Your task to perform on an android device: Open internet settings Image 0: 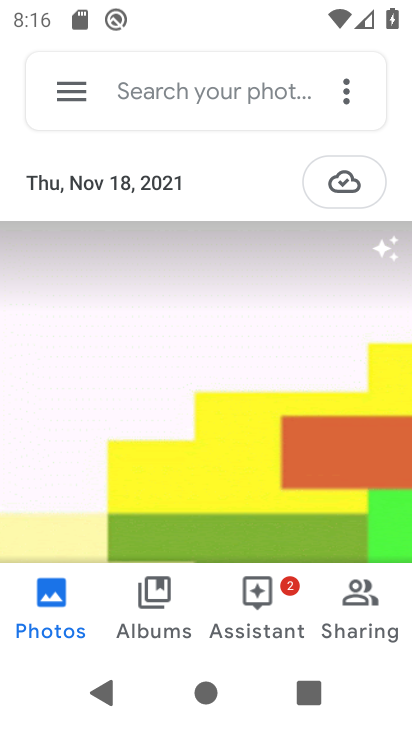
Step 0: press home button
Your task to perform on an android device: Open internet settings Image 1: 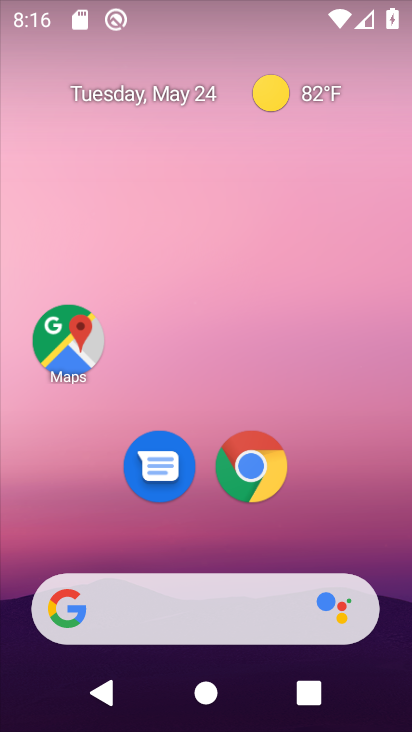
Step 1: drag from (221, 579) to (274, 243)
Your task to perform on an android device: Open internet settings Image 2: 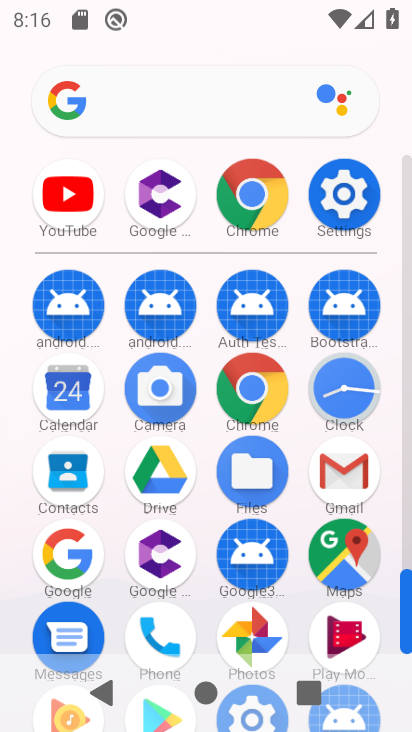
Step 2: click (333, 185)
Your task to perform on an android device: Open internet settings Image 3: 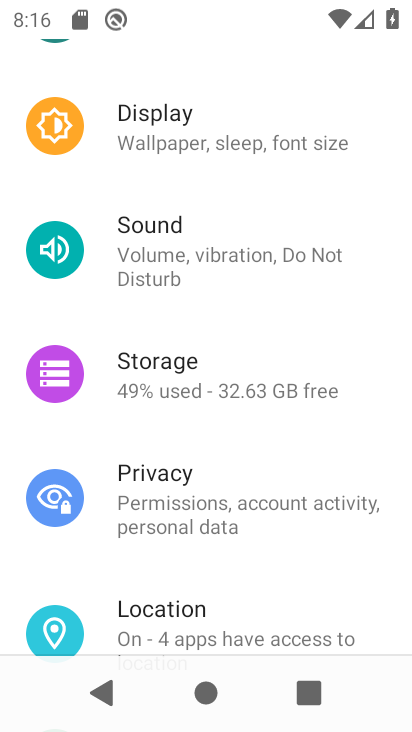
Step 3: drag from (217, 119) to (166, 583)
Your task to perform on an android device: Open internet settings Image 4: 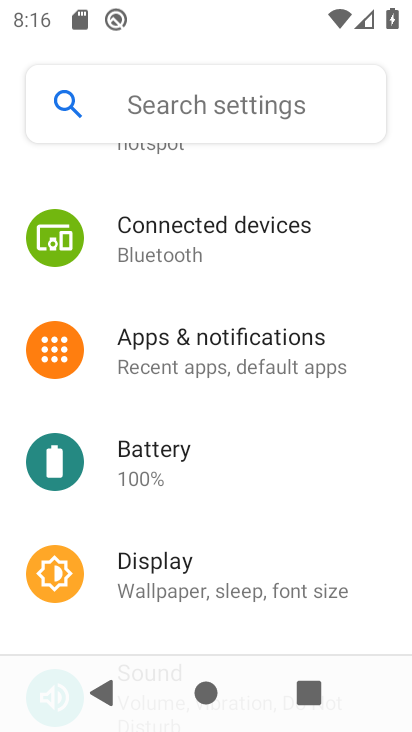
Step 4: drag from (289, 194) to (239, 557)
Your task to perform on an android device: Open internet settings Image 5: 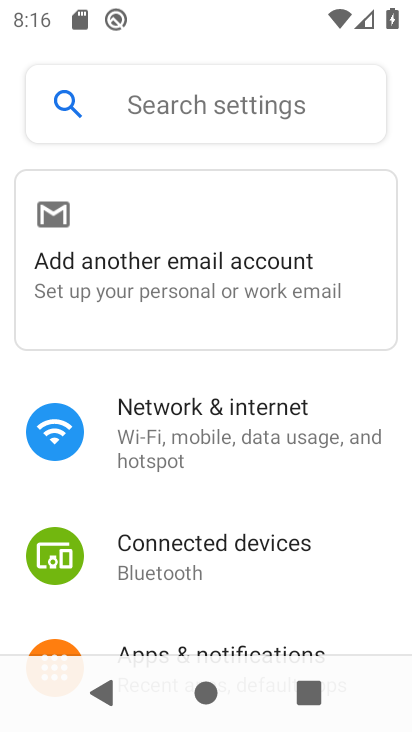
Step 5: click (233, 427)
Your task to perform on an android device: Open internet settings Image 6: 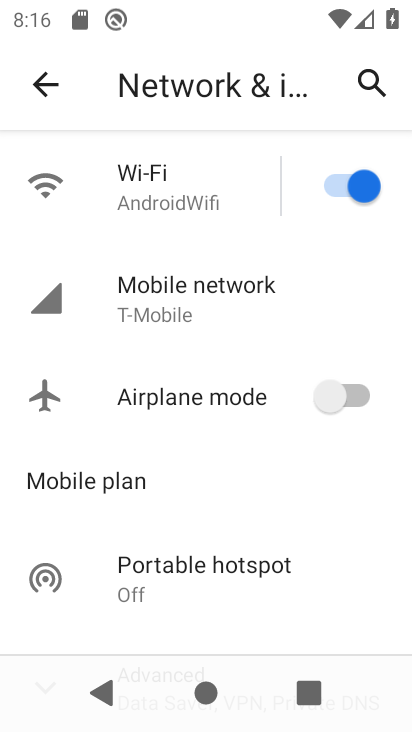
Step 6: drag from (213, 611) to (259, 166)
Your task to perform on an android device: Open internet settings Image 7: 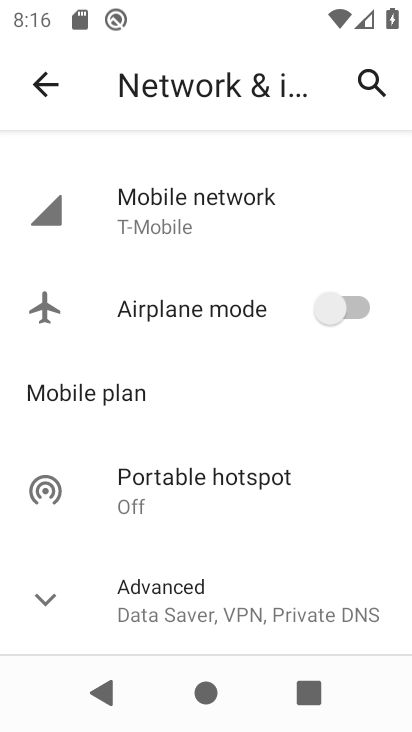
Step 7: click (257, 603)
Your task to perform on an android device: Open internet settings Image 8: 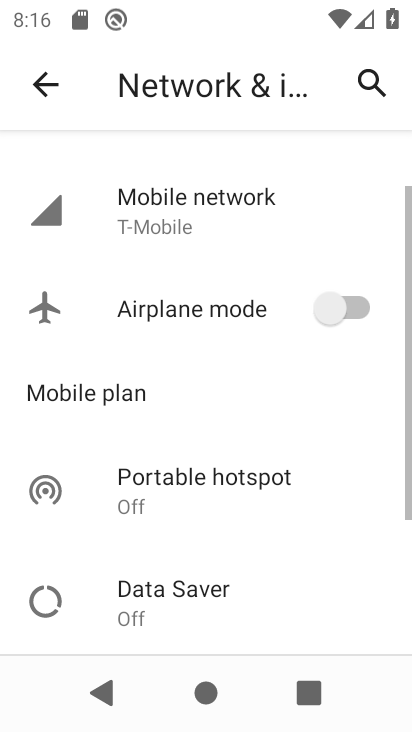
Step 8: task complete